Your task to perform on an android device: Show the shopping cart on ebay.com. Add macbook pro to the cart on ebay.com, then select checkout. Image 0: 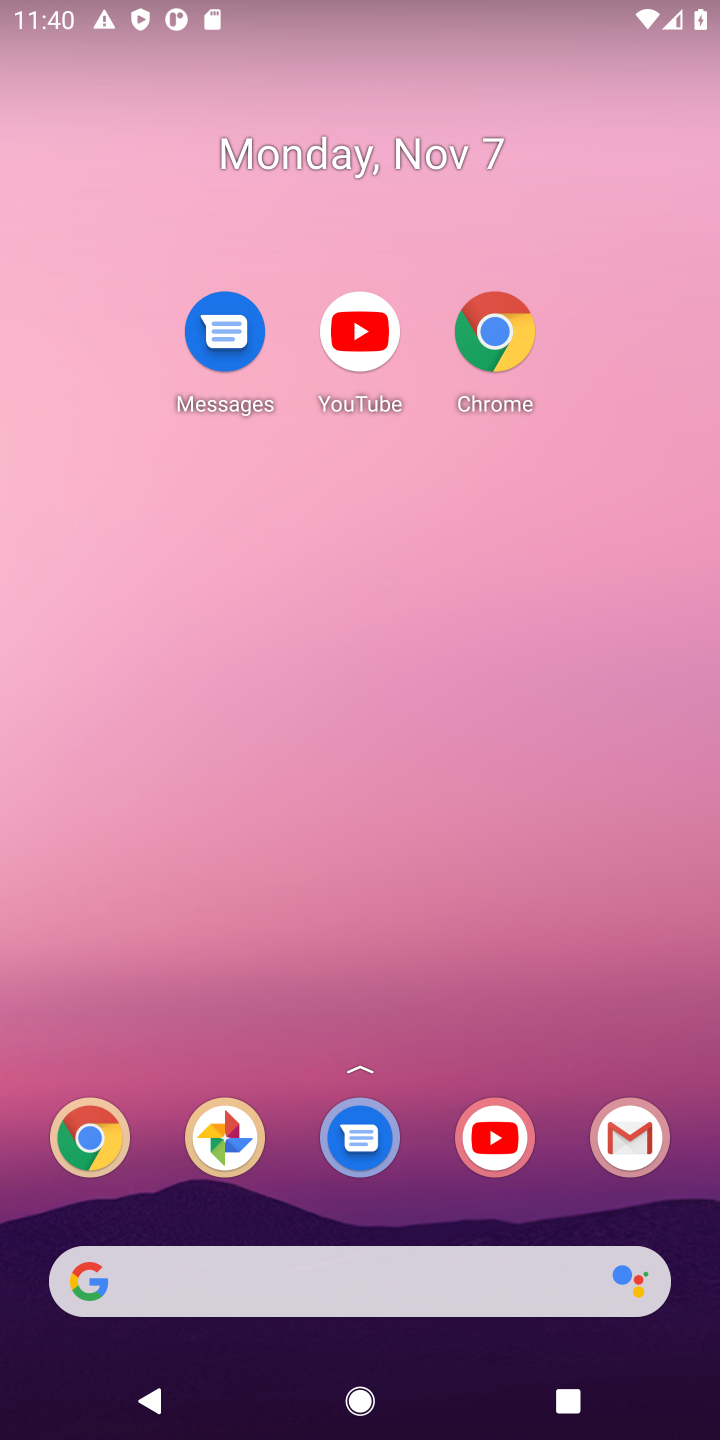
Step 0: drag from (430, 1195) to (277, 122)
Your task to perform on an android device: Show the shopping cart on ebay.com. Add macbook pro to the cart on ebay.com, then select checkout. Image 1: 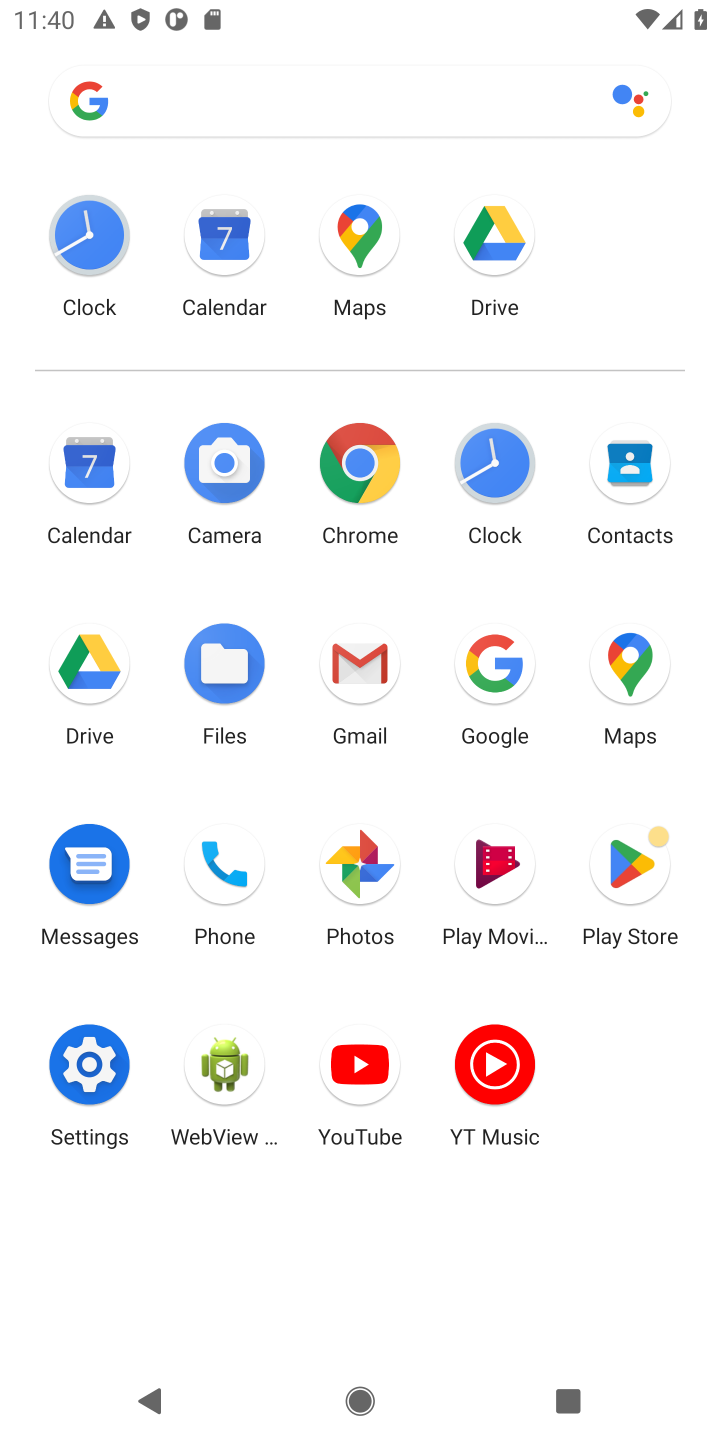
Step 1: click (367, 458)
Your task to perform on an android device: Show the shopping cart on ebay.com. Add macbook pro to the cart on ebay.com, then select checkout. Image 2: 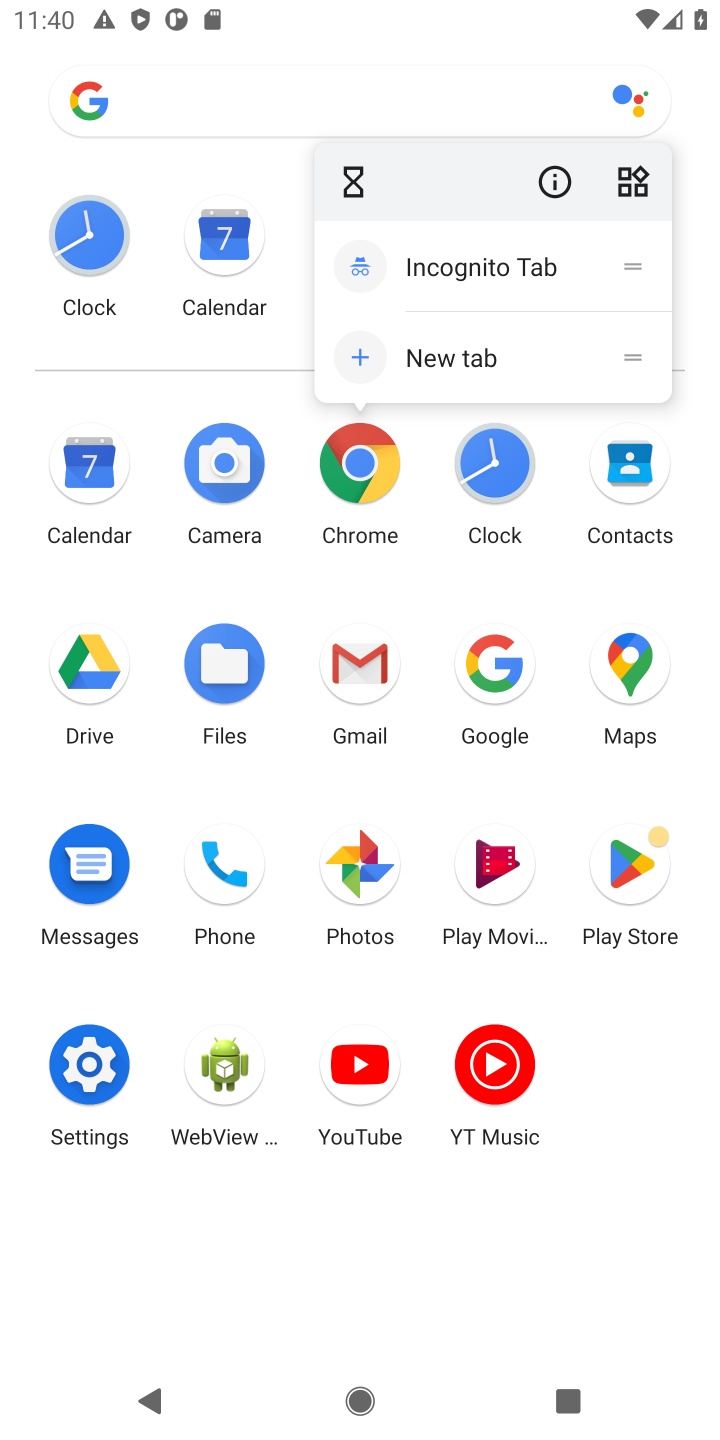
Step 2: click (360, 459)
Your task to perform on an android device: Show the shopping cart on ebay.com. Add macbook pro to the cart on ebay.com, then select checkout. Image 3: 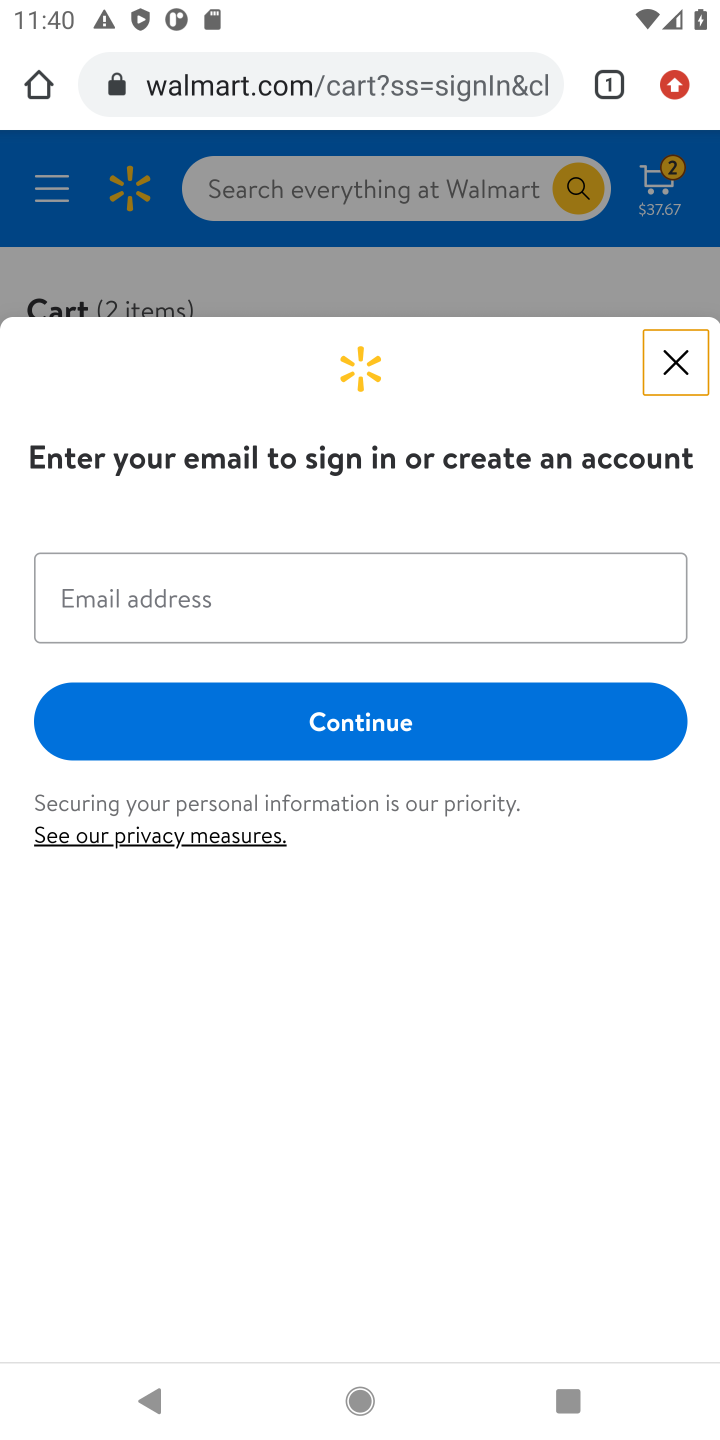
Step 3: click (408, 75)
Your task to perform on an android device: Show the shopping cart on ebay.com. Add macbook pro to the cart on ebay.com, then select checkout. Image 4: 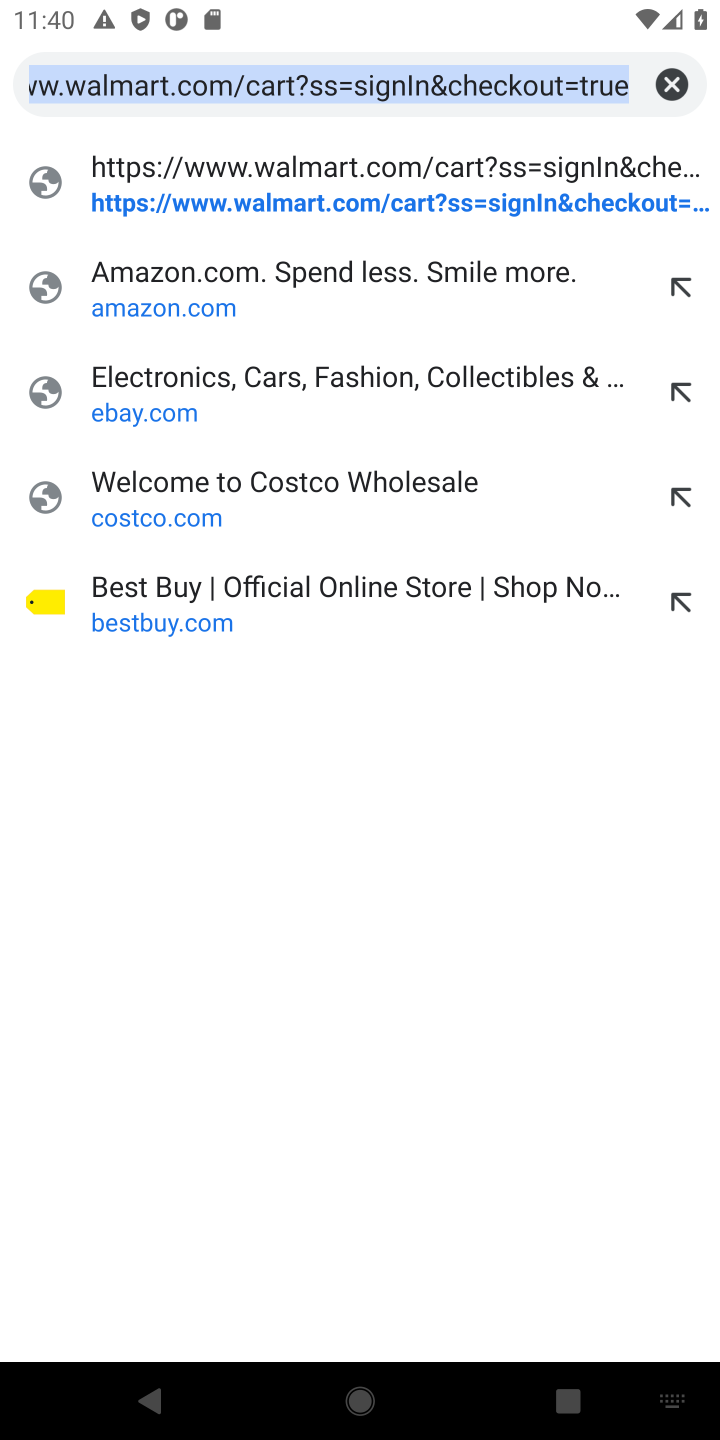
Step 4: type "ebay.com"
Your task to perform on an android device: Show the shopping cart on ebay.com. Add macbook pro to the cart on ebay.com, then select checkout. Image 5: 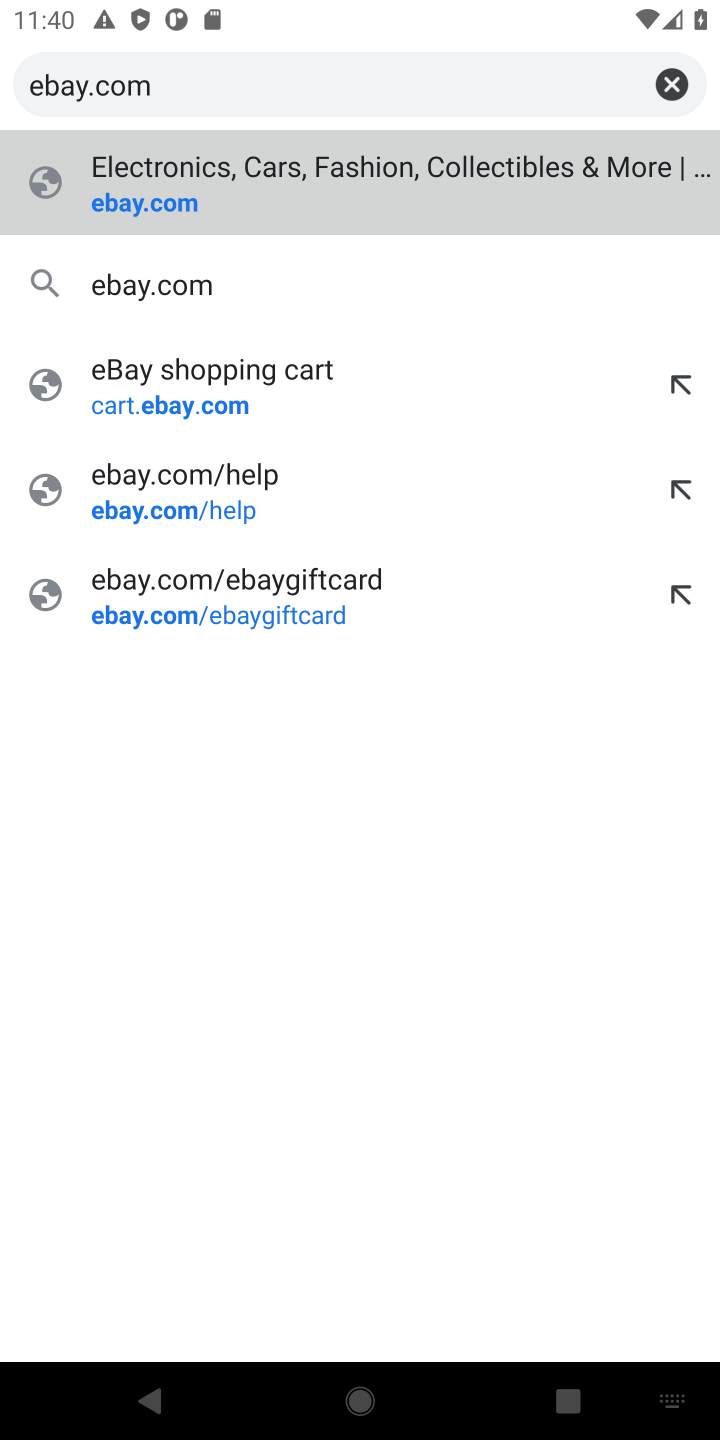
Step 5: press enter
Your task to perform on an android device: Show the shopping cart on ebay.com. Add macbook pro to the cart on ebay.com, then select checkout. Image 6: 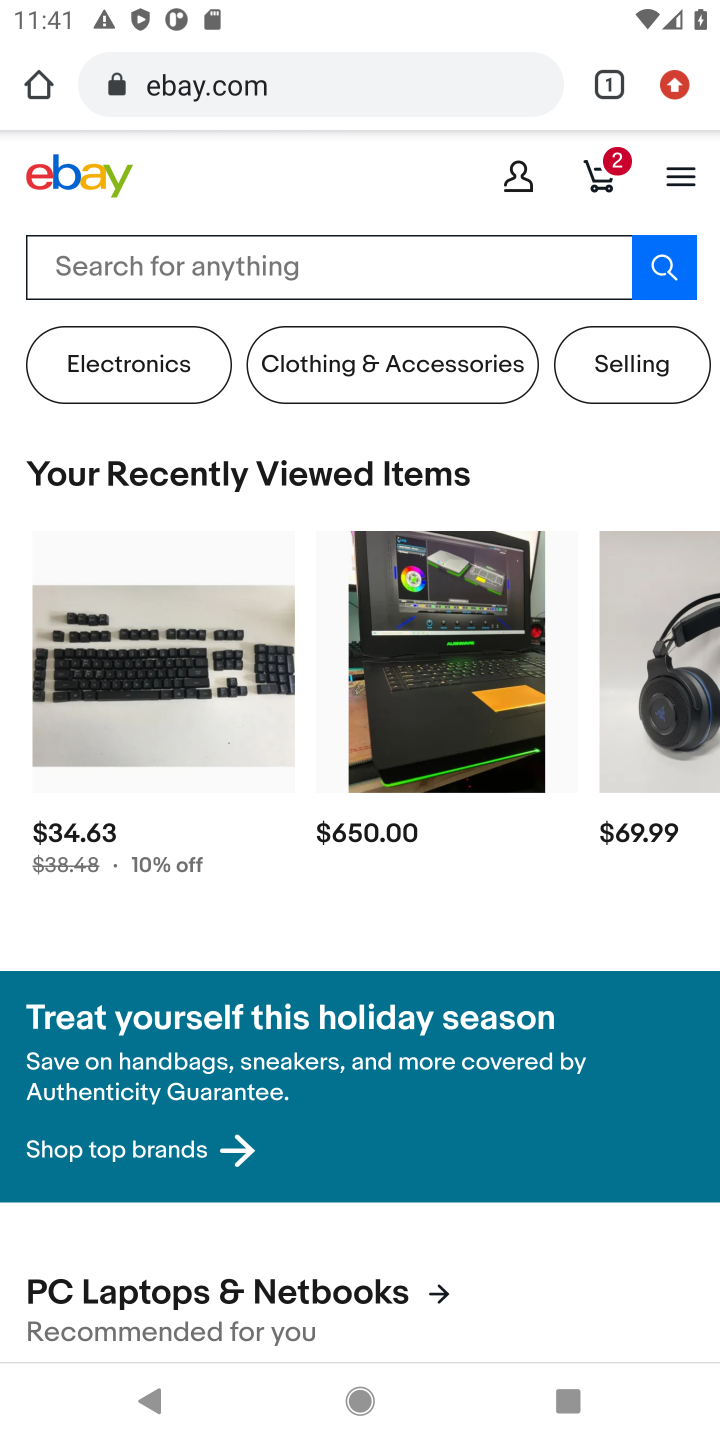
Step 6: click (593, 165)
Your task to perform on an android device: Show the shopping cart on ebay.com. Add macbook pro to the cart on ebay.com, then select checkout. Image 7: 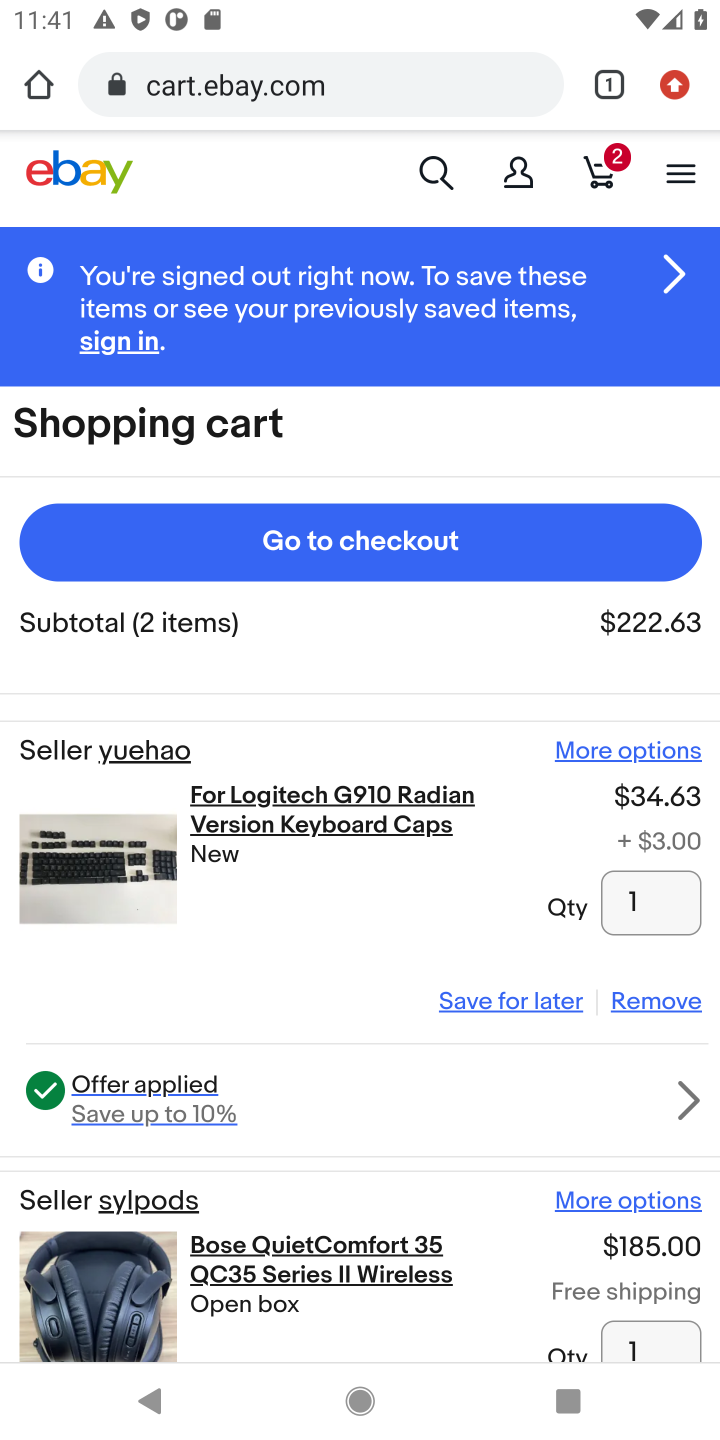
Step 7: click (428, 172)
Your task to perform on an android device: Show the shopping cart on ebay.com. Add macbook pro to the cart on ebay.com, then select checkout. Image 8: 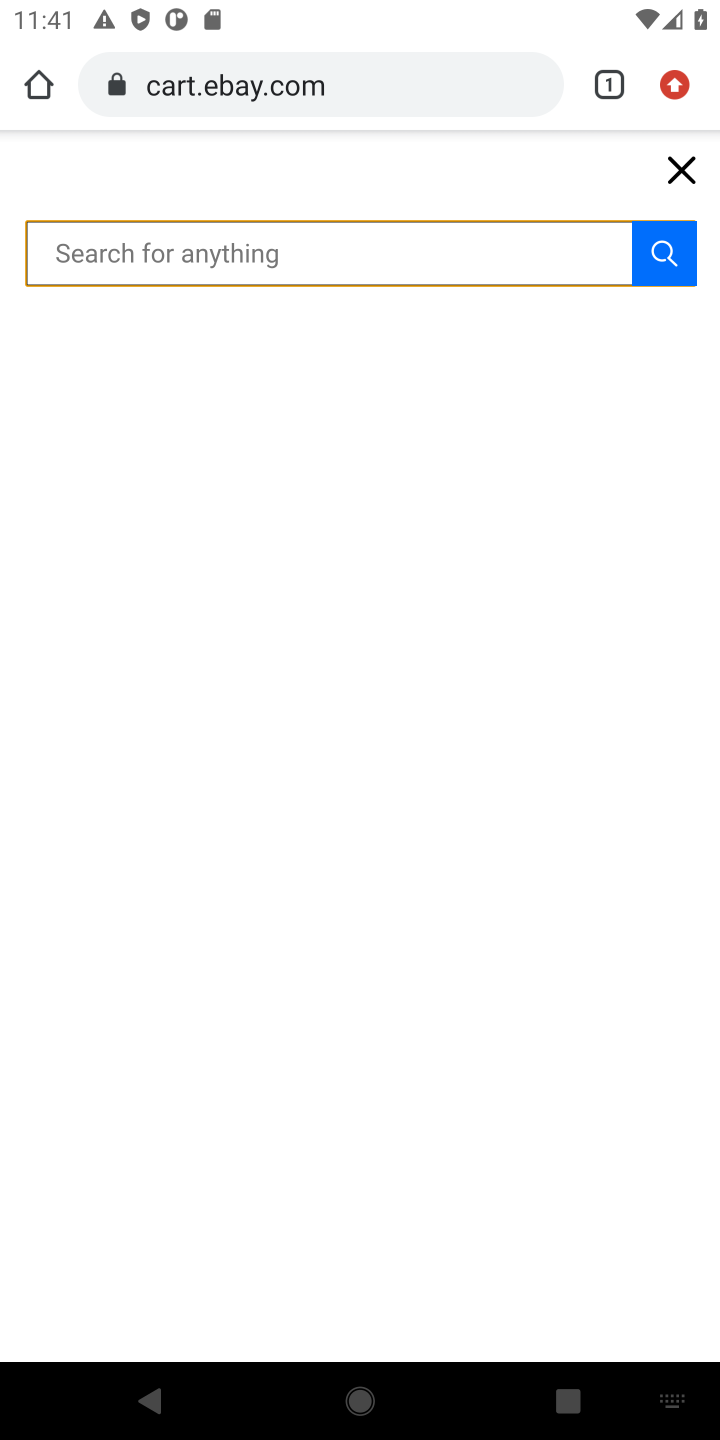
Step 8: type "add macbook pro"
Your task to perform on an android device: Show the shopping cart on ebay.com. Add macbook pro to the cart on ebay.com, then select checkout. Image 9: 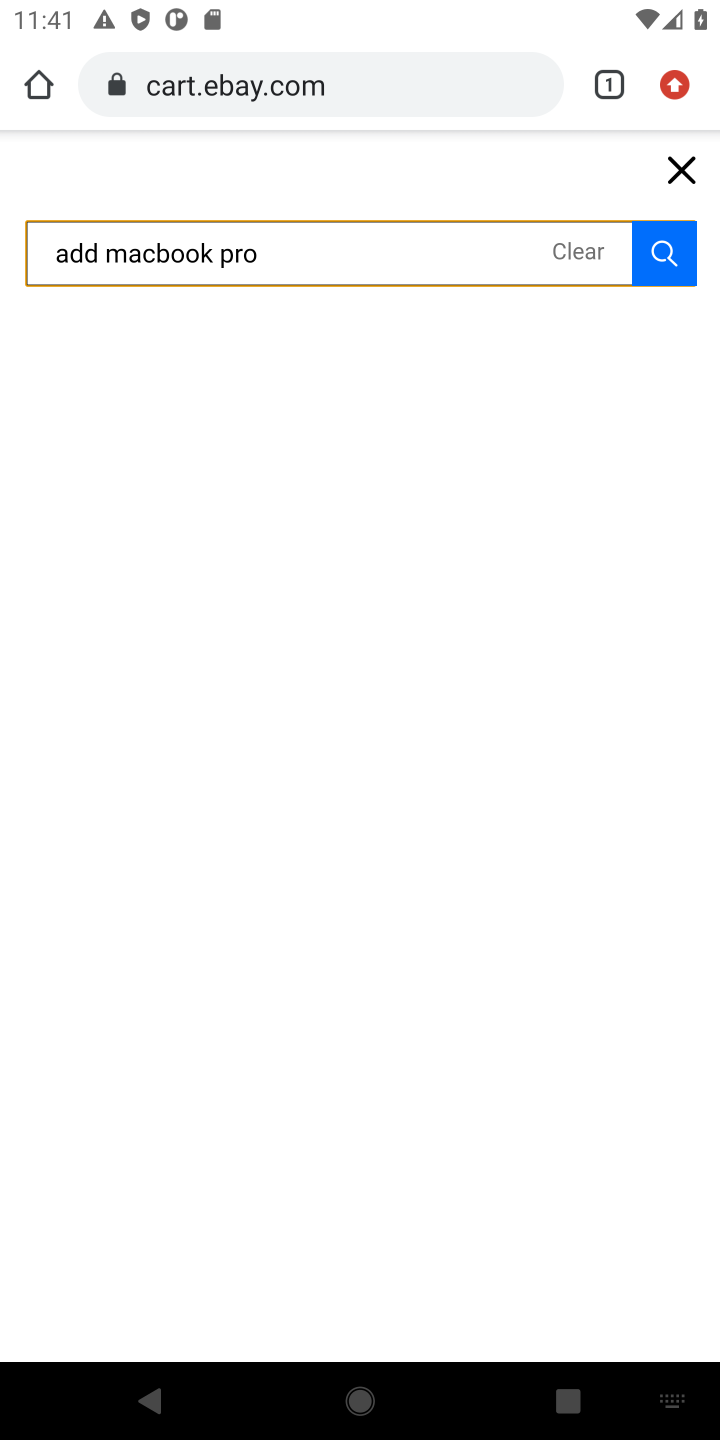
Step 9: press enter
Your task to perform on an android device: Show the shopping cart on ebay.com. Add macbook pro to the cart on ebay.com, then select checkout. Image 10: 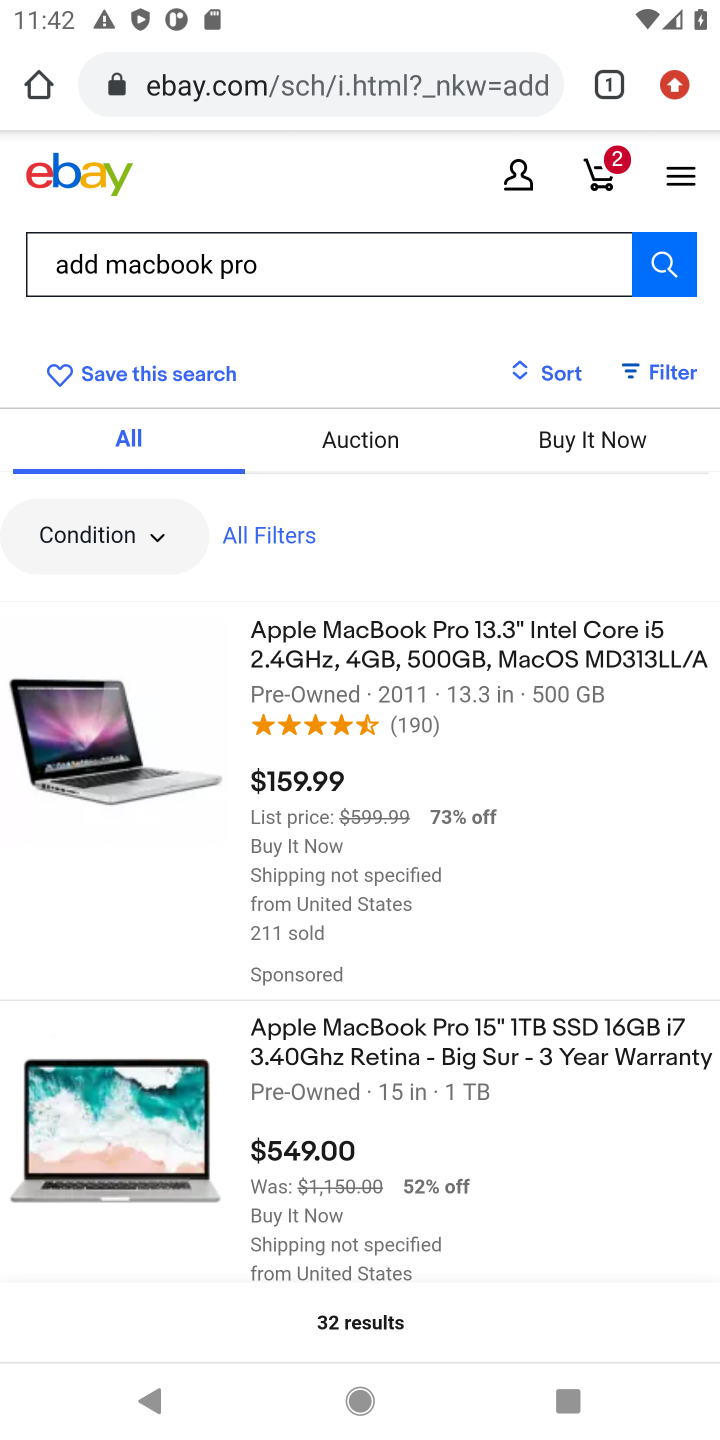
Step 10: click (334, 662)
Your task to perform on an android device: Show the shopping cart on ebay.com. Add macbook pro to the cart on ebay.com, then select checkout. Image 11: 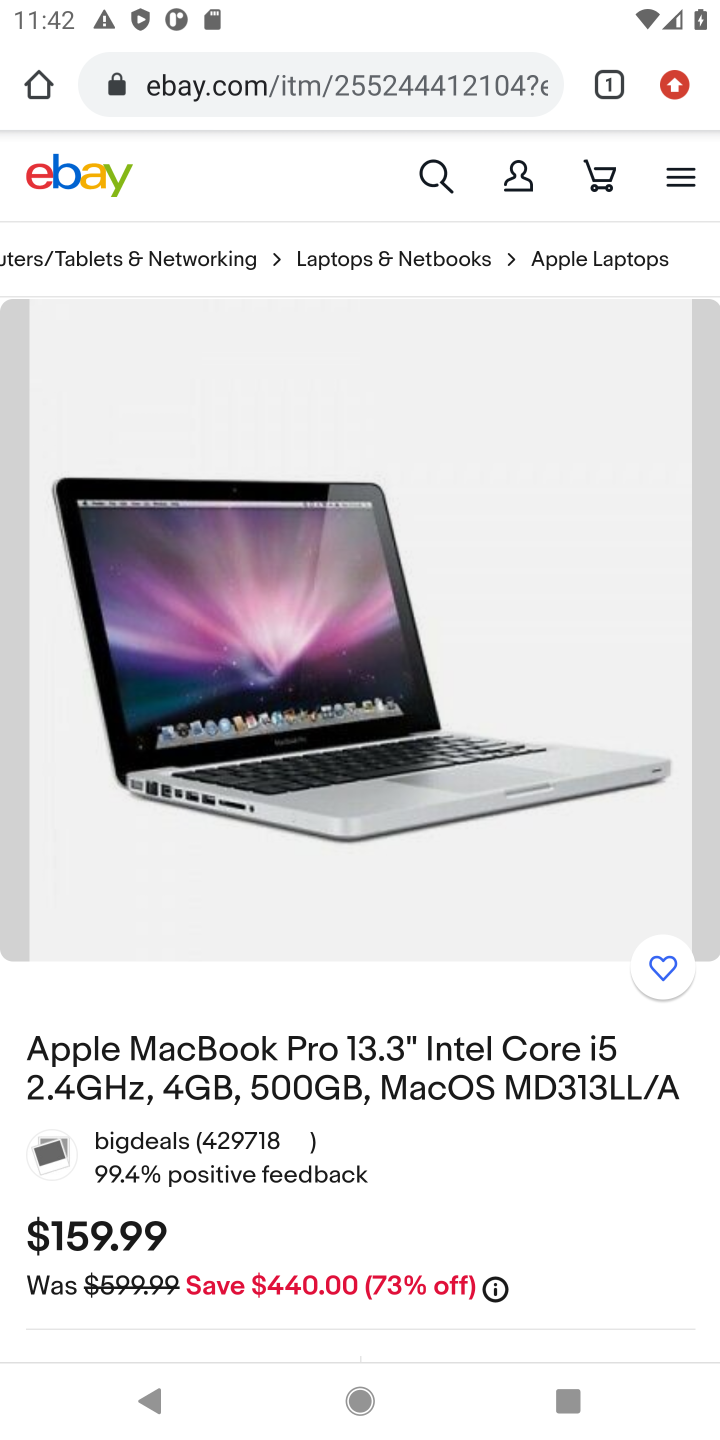
Step 11: drag from (281, 1087) to (267, 628)
Your task to perform on an android device: Show the shopping cart on ebay.com. Add macbook pro to the cart on ebay.com, then select checkout. Image 12: 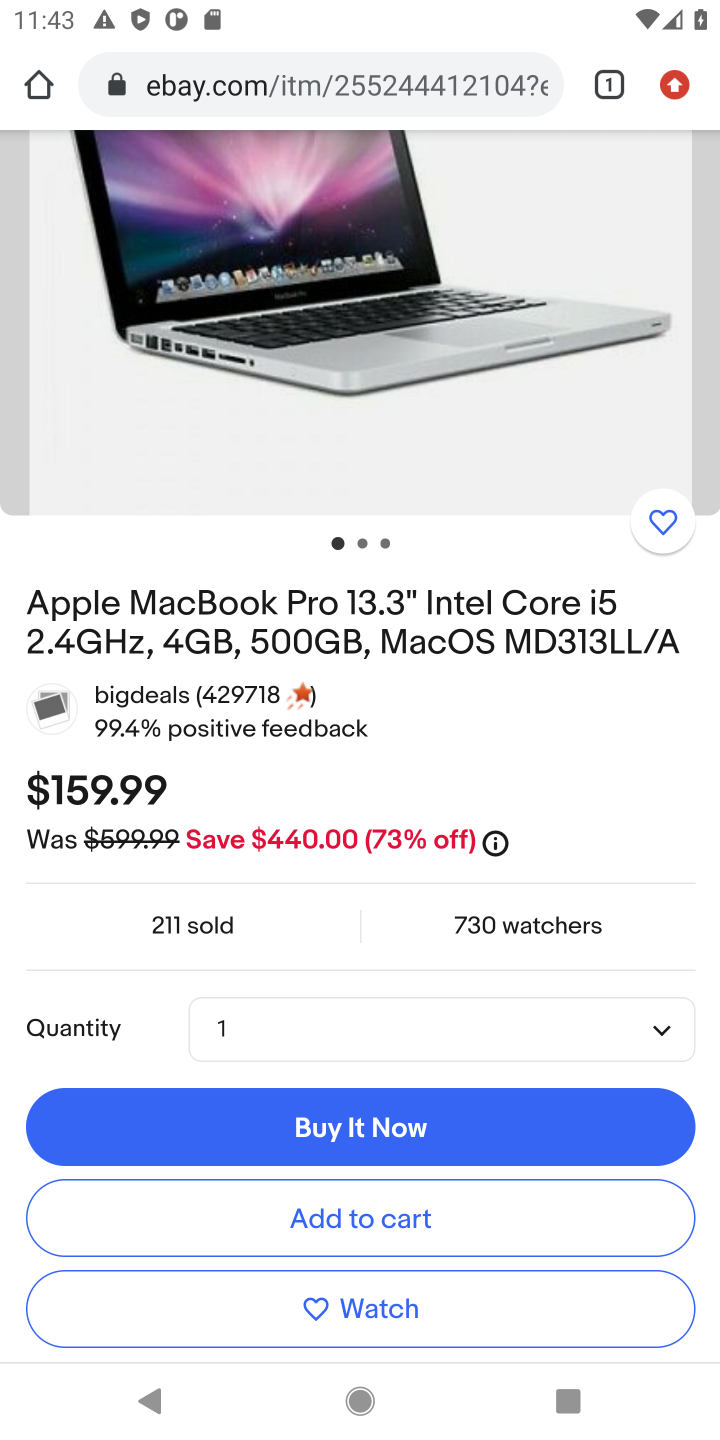
Step 12: click (388, 1231)
Your task to perform on an android device: Show the shopping cart on ebay.com. Add macbook pro to the cart on ebay.com, then select checkout. Image 13: 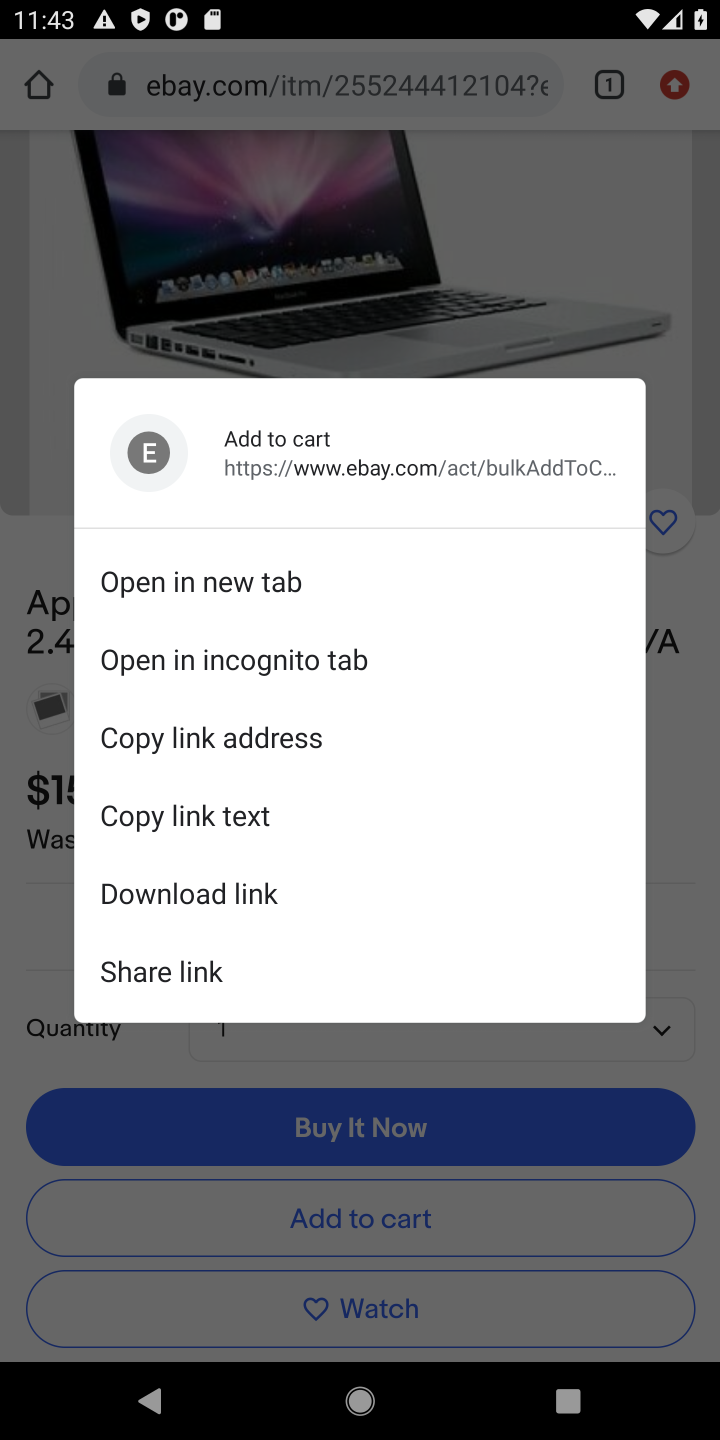
Step 13: click (367, 1209)
Your task to perform on an android device: Show the shopping cart on ebay.com. Add macbook pro to the cart on ebay.com, then select checkout. Image 14: 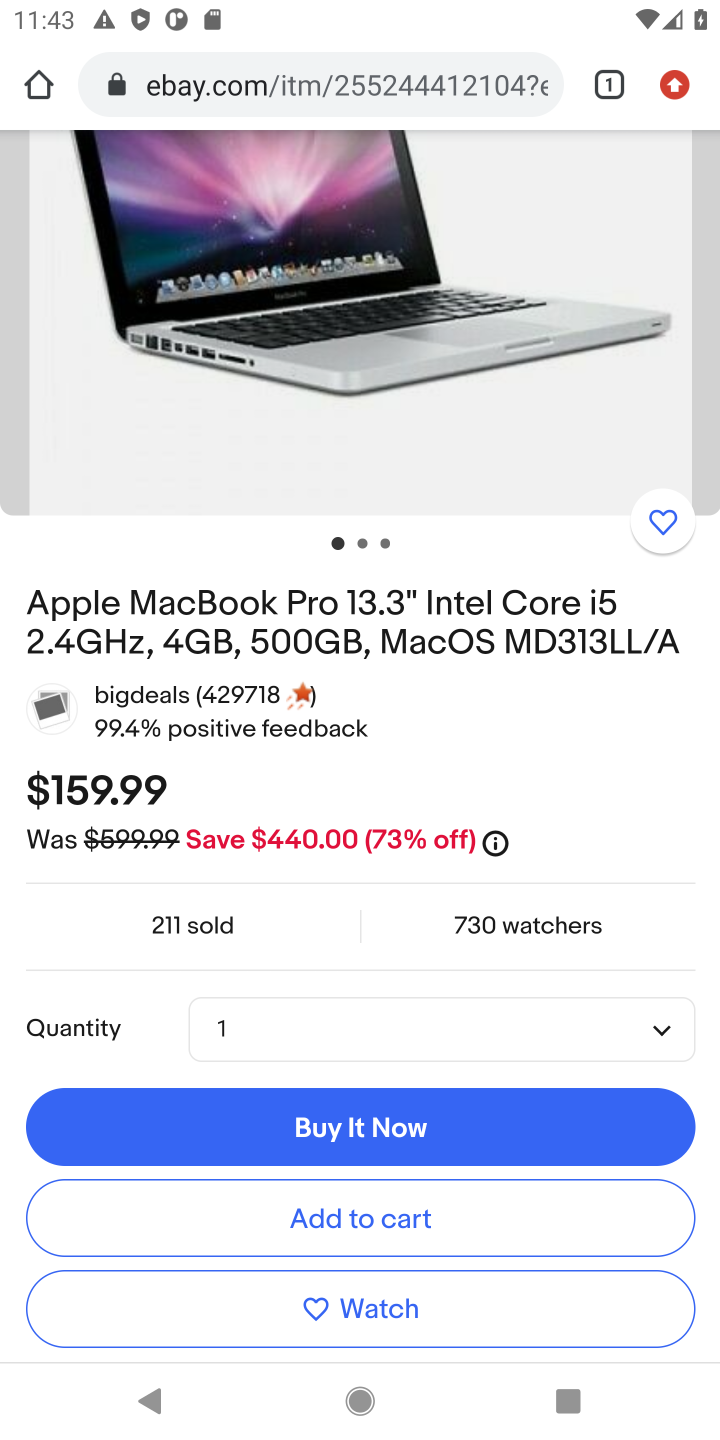
Step 14: click (367, 1209)
Your task to perform on an android device: Show the shopping cart on ebay.com. Add macbook pro to the cart on ebay.com, then select checkout. Image 15: 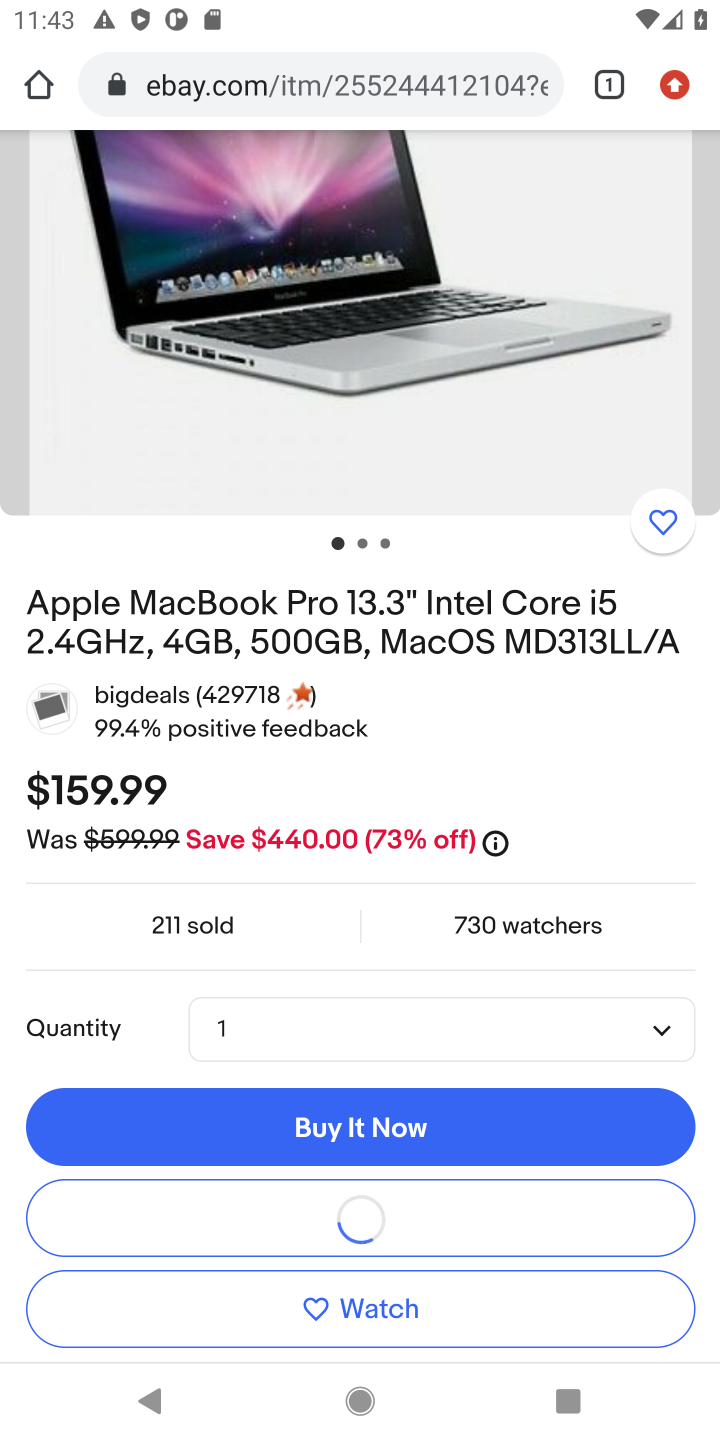
Step 15: click (367, 1209)
Your task to perform on an android device: Show the shopping cart on ebay.com. Add macbook pro to the cart on ebay.com, then select checkout. Image 16: 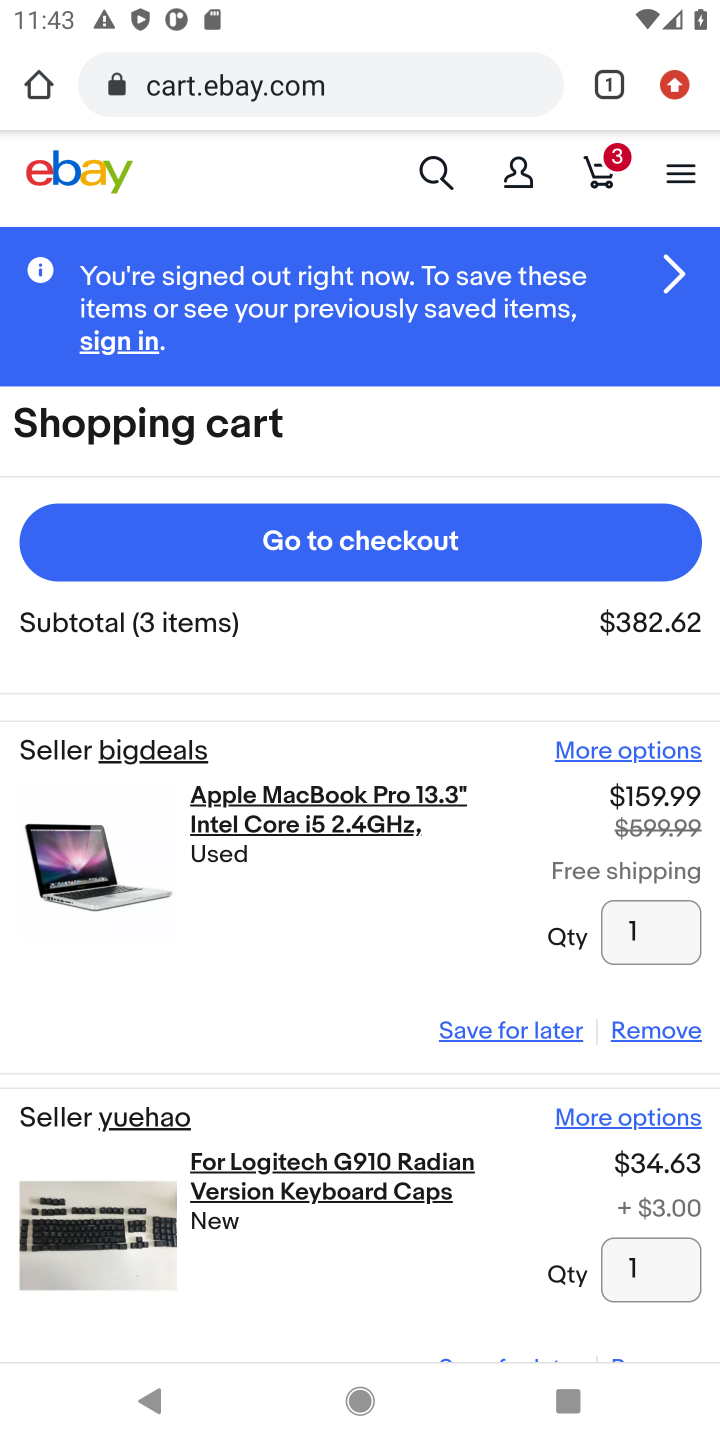
Step 16: click (501, 498)
Your task to perform on an android device: Show the shopping cart on ebay.com. Add macbook pro to the cart on ebay.com, then select checkout. Image 17: 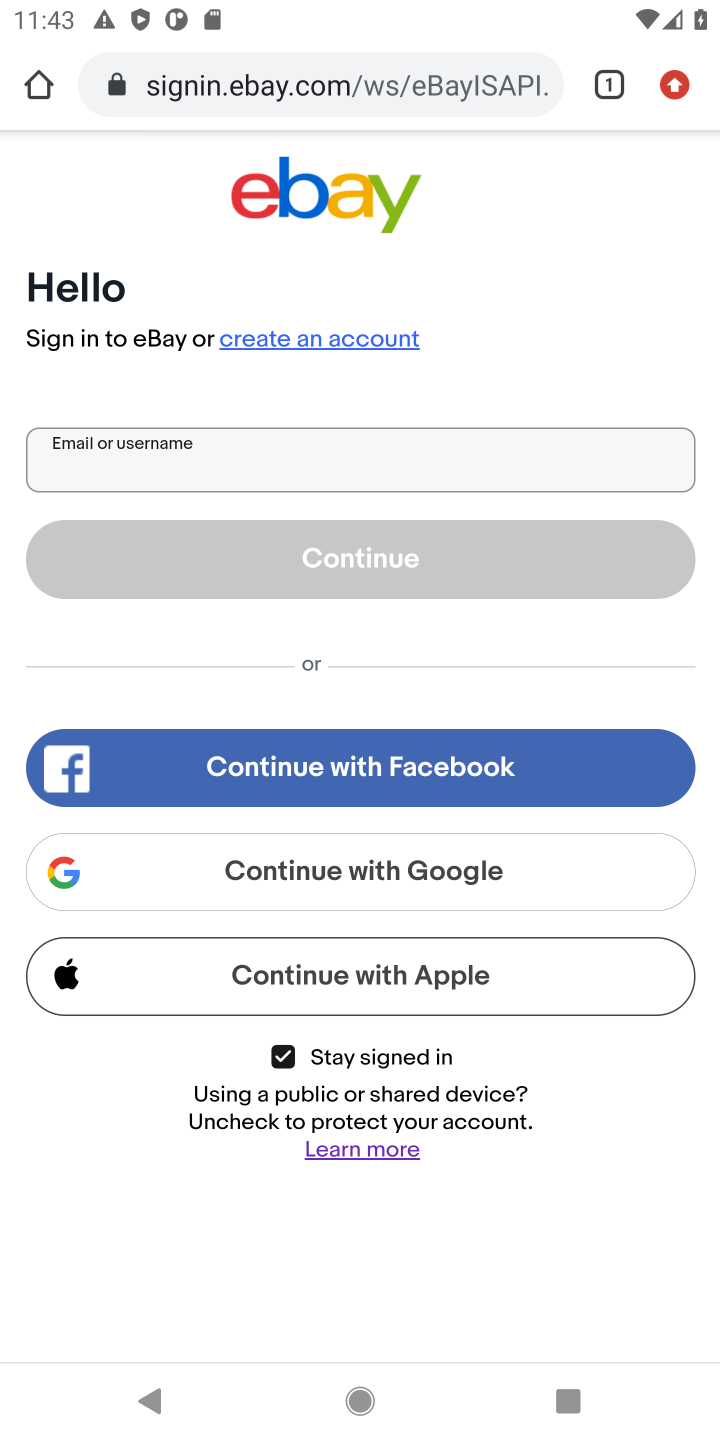
Step 17: task complete